Your task to perform on an android device: Open the stopwatch Image 0: 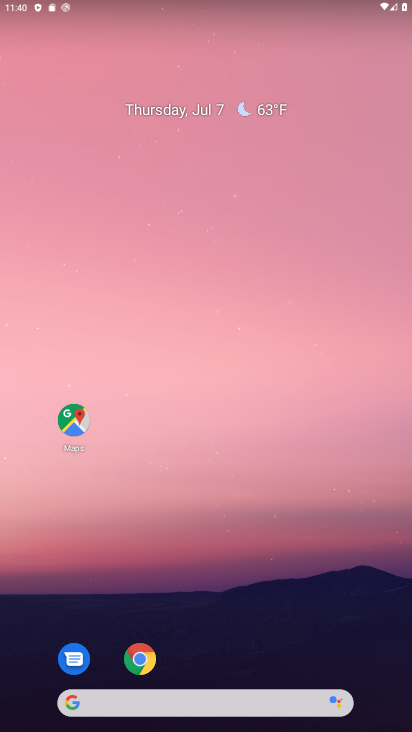
Step 0: drag from (210, 519) to (388, 473)
Your task to perform on an android device: Open the stopwatch Image 1: 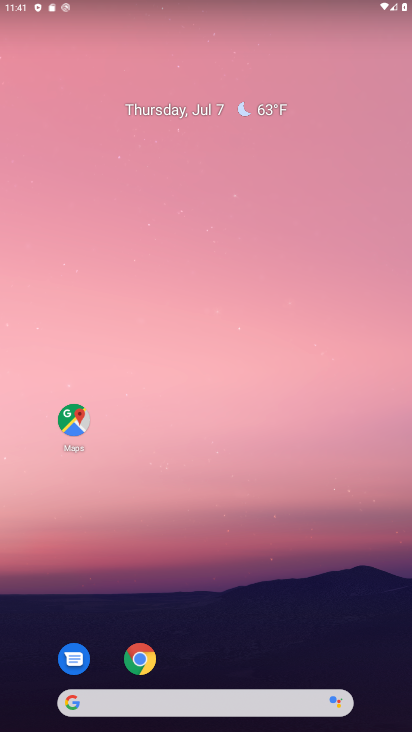
Step 1: drag from (258, 624) to (294, 26)
Your task to perform on an android device: Open the stopwatch Image 2: 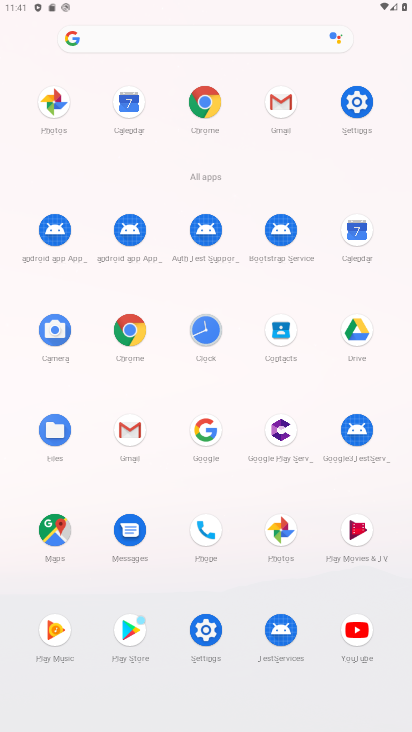
Step 2: click (204, 345)
Your task to perform on an android device: Open the stopwatch Image 3: 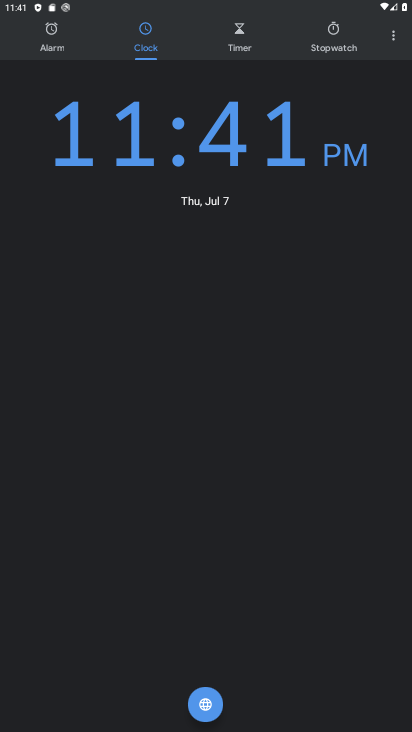
Step 3: click (342, 35)
Your task to perform on an android device: Open the stopwatch Image 4: 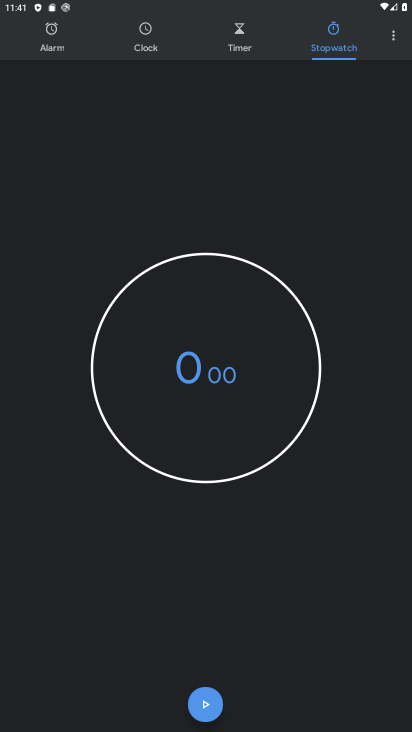
Step 4: click (205, 702)
Your task to perform on an android device: Open the stopwatch Image 5: 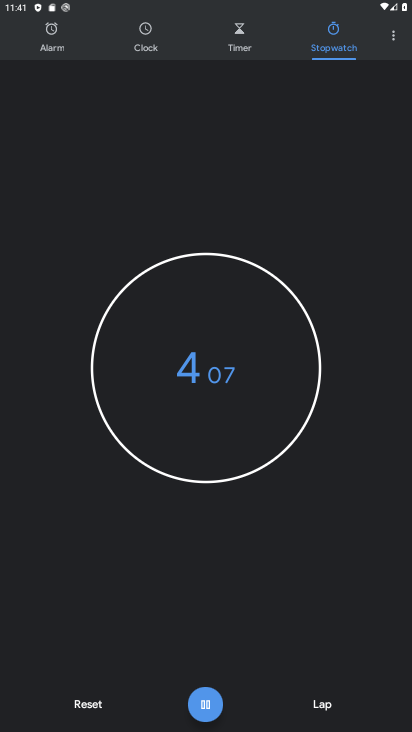
Step 5: task complete